Your task to perform on an android device: open app "PUBG MOBILE" (install if not already installed) and enter user name: "phenomenologically@gmail.com" and password: "artillery" Image 0: 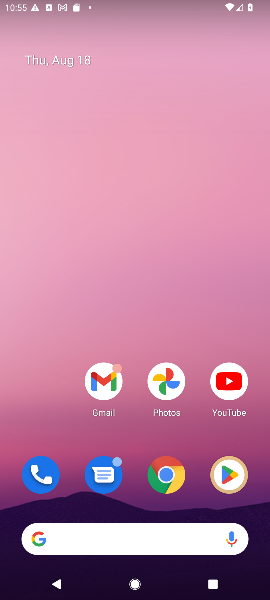
Step 0: click (229, 469)
Your task to perform on an android device: open app "PUBG MOBILE" (install if not already installed) and enter user name: "phenomenologically@gmail.com" and password: "artillery" Image 1: 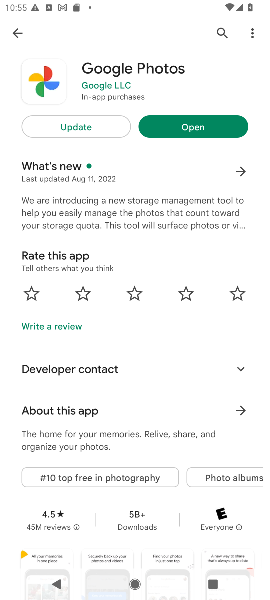
Step 1: click (18, 32)
Your task to perform on an android device: open app "PUBG MOBILE" (install if not already installed) and enter user name: "phenomenologically@gmail.com" and password: "artillery" Image 2: 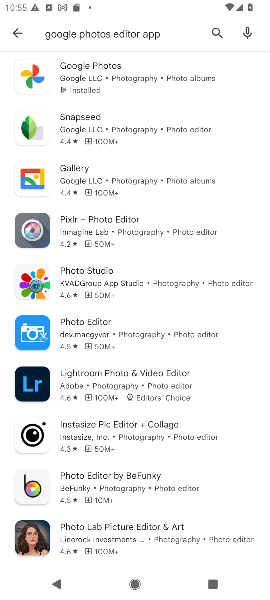
Step 2: click (219, 31)
Your task to perform on an android device: open app "PUBG MOBILE" (install if not already installed) and enter user name: "phenomenologically@gmail.com" and password: "artillery" Image 3: 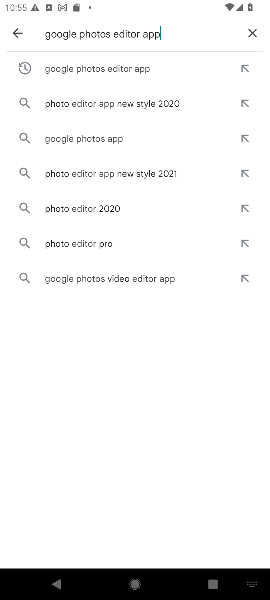
Step 3: click (254, 34)
Your task to perform on an android device: open app "PUBG MOBILE" (install if not already installed) and enter user name: "phenomenologically@gmail.com" and password: "artillery" Image 4: 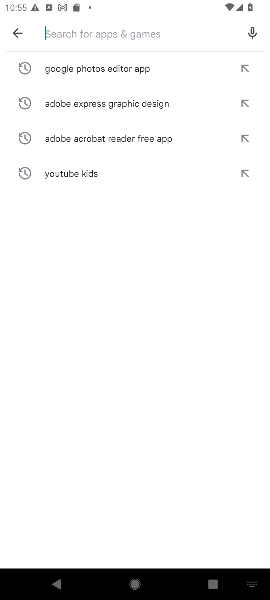
Step 4: type "PUBG MOBILE"
Your task to perform on an android device: open app "PUBG MOBILE" (install if not already installed) and enter user name: "phenomenologically@gmail.com" and password: "artillery" Image 5: 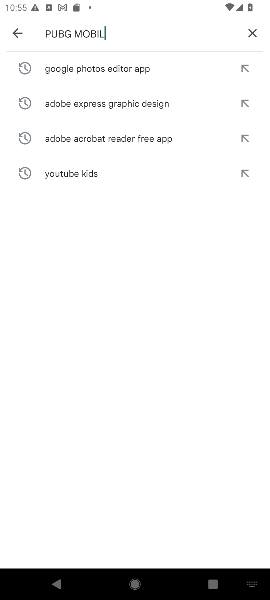
Step 5: type ""
Your task to perform on an android device: open app "PUBG MOBILE" (install if not already installed) and enter user name: "phenomenologically@gmail.com" and password: "artillery" Image 6: 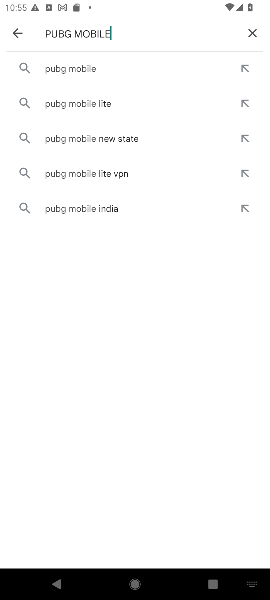
Step 6: click (73, 69)
Your task to perform on an android device: open app "PUBG MOBILE" (install if not already installed) and enter user name: "phenomenologically@gmail.com" and password: "artillery" Image 7: 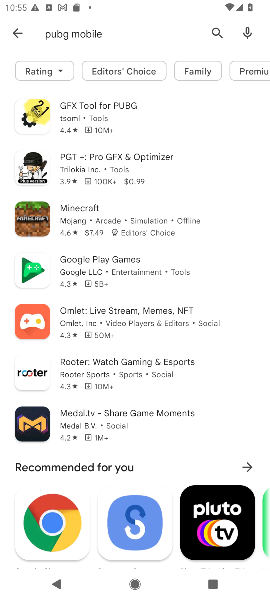
Step 7: task complete